Your task to perform on an android device: check android version Image 0: 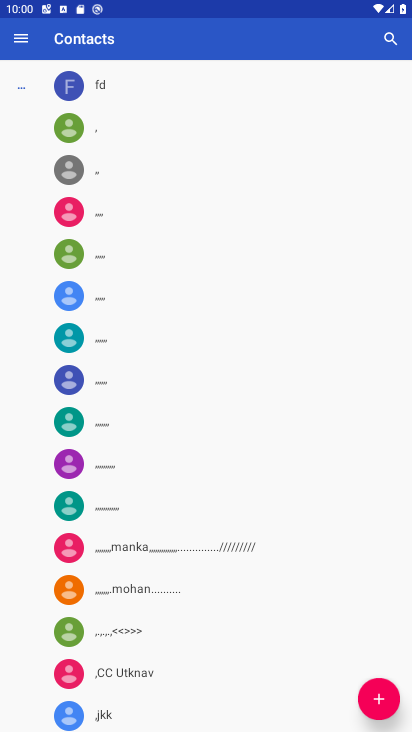
Step 0: press home button
Your task to perform on an android device: check android version Image 1: 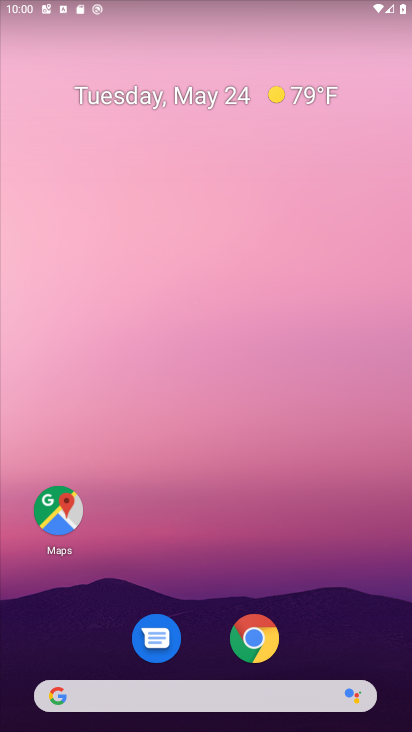
Step 1: drag from (312, 730) to (297, 113)
Your task to perform on an android device: check android version Image 2: 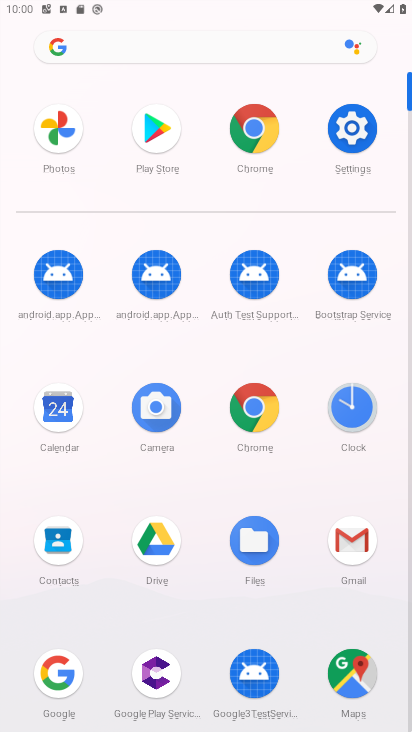
Step 2: click (352, 136)
Your task to perform on an android device: check android version Image 3: 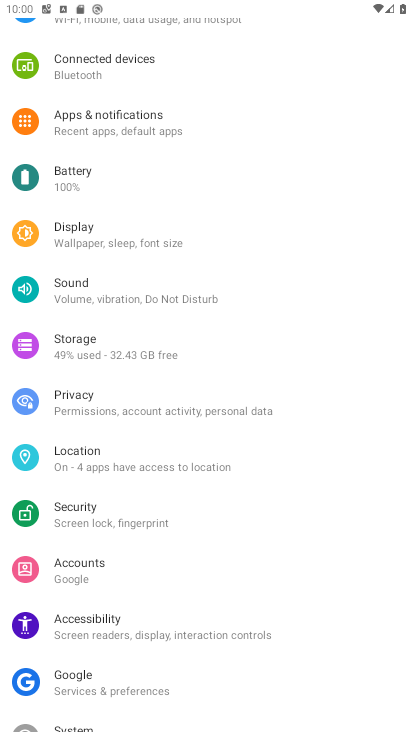
Step 3: drag from (159, 683) to (198, 31)
Your task to perform on an android device: check android version Image 4: 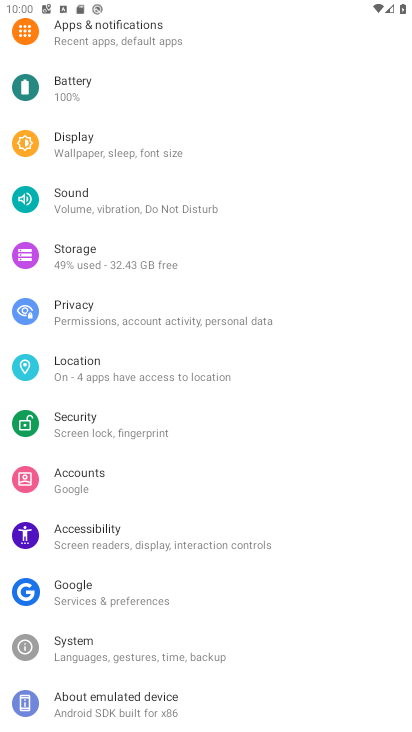
Step 4: click (114, 709)
Your task to perform on an android device: check android version Image 5: 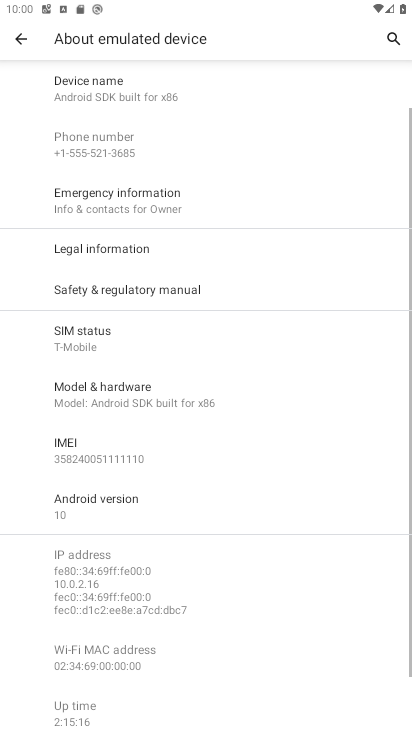
Step 5: task complete